Your task to perform on an android device: Search for Mexican restaurants on Maps Image 0: 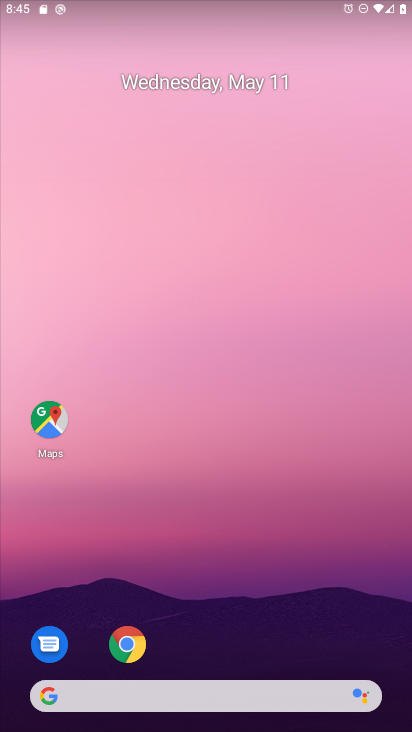
Step 0: click (47, 423)
Your task to perform on an android device: Search for Mexican restaurants on Maps Image 1: 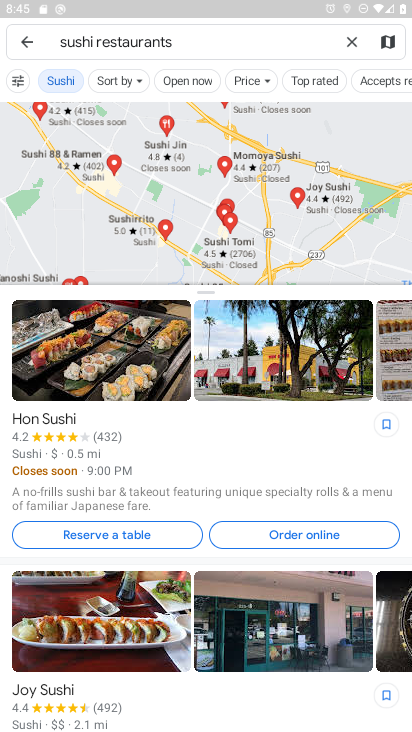
Step 1: click (347, 35)
Your task to perform on an android device: Search for Mexican restaurants on Maps Image 2: 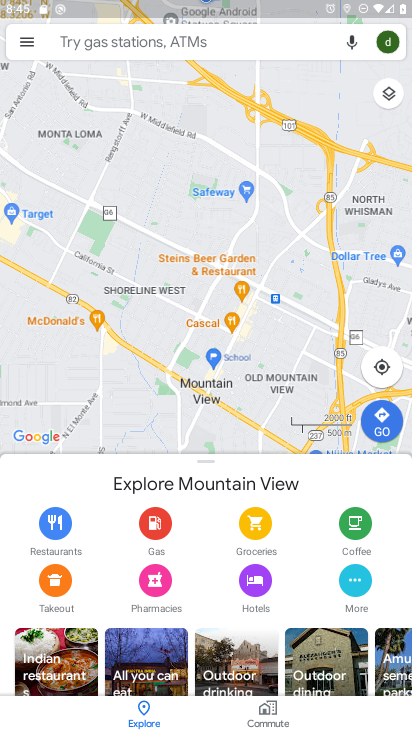
Step 2: click (159, 33)
Your task to perform on an android device: Search for Mexican restaurants on Maps Image 3: 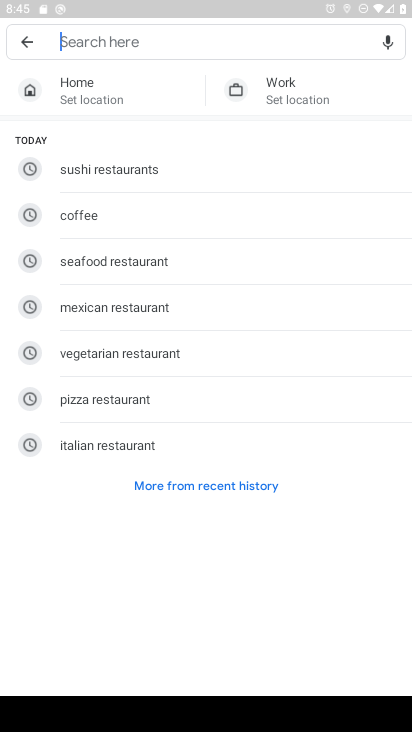
Step 3: click (127, 300)
Your task to perform on an android device: Search for Mexican restaurants on Maps Image 4: 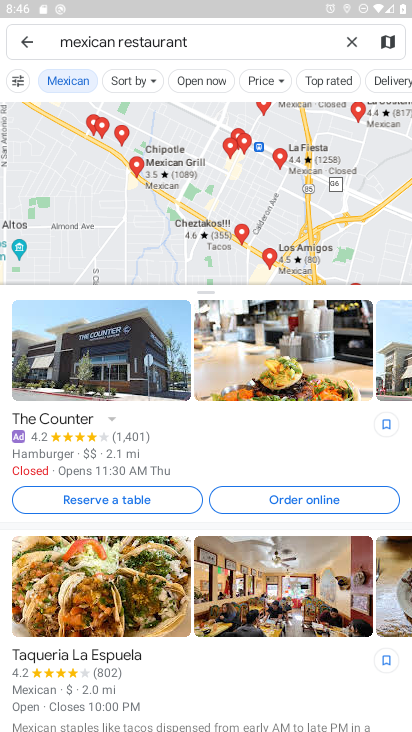
Step 4: task complete